Your task to perform on an android device: Do I have any events tomorrow? Image 0: 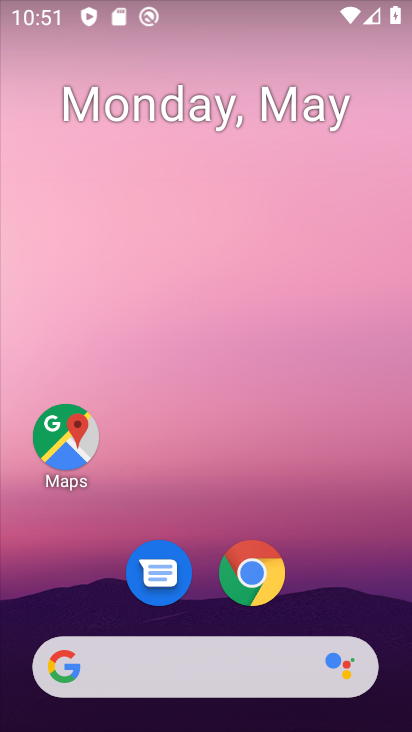
Step 0: drag from (156, 635) to (224, 193)
Your task to perform on an android device: Do I have any events tomorrow? Image 1: 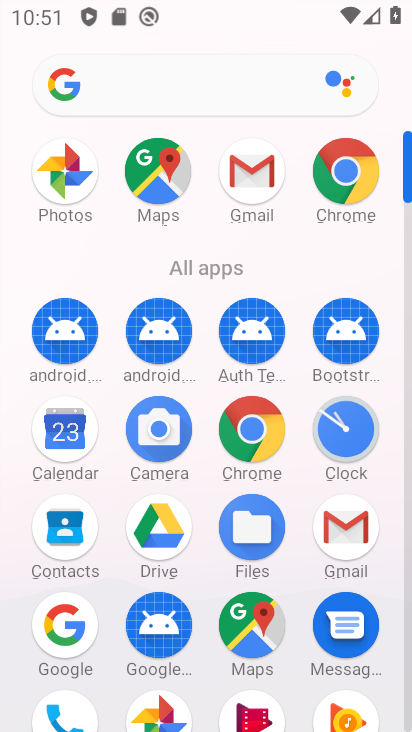
Step 1: click (59, 430)
Your task to perform on an android device: Do I have any events tomorrow? Image 2: 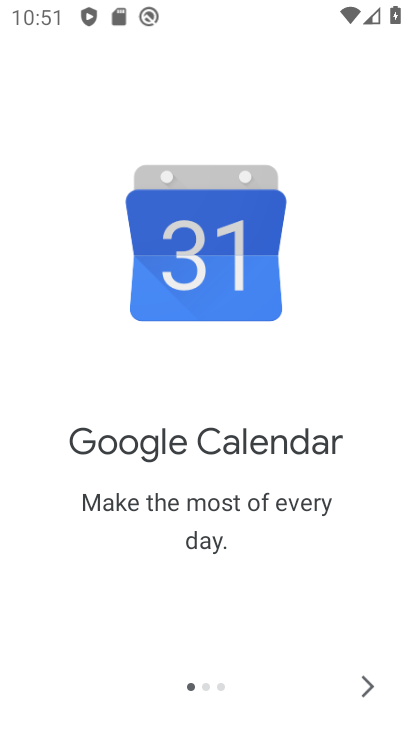
Step 2: click (365, 688)
Your task to perform on an android device: Do I have any events tomorrow? Image 3: 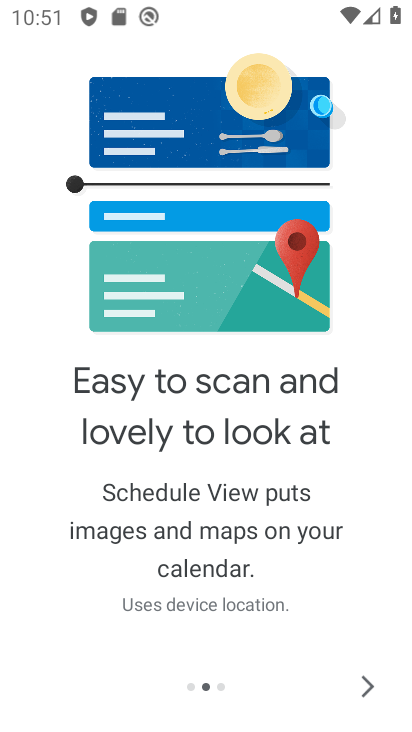
Step 3: click (365, 688)
Your task to perform on an android device: Do I have any events tomorrow? Image 4: 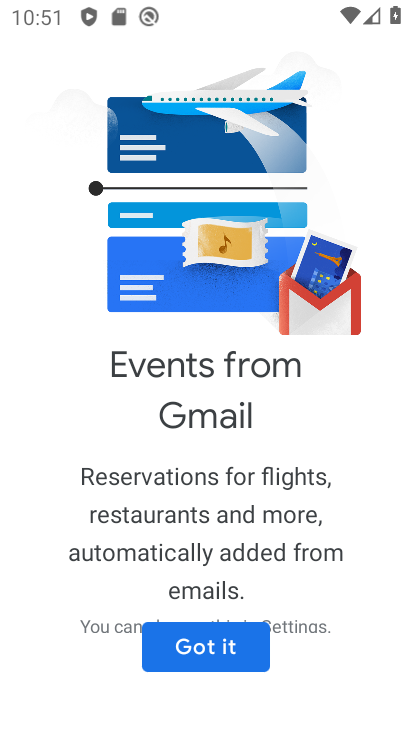
Step 4: click (223, 642)
Your task to perform on an android device: Do I have any events tomorrow? Image 5: 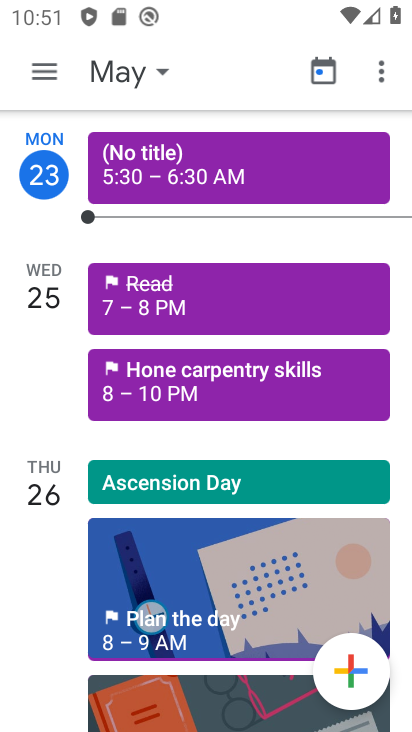
Step 5: click (133, 73)
Your task to perform on an android device: Do I have any events tomorrow? Image 6: 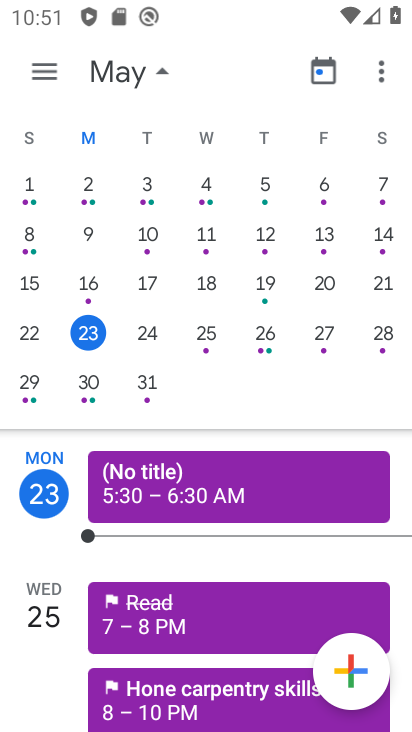
Step 6: click (148, 335)
Your task to perform on an android device: Do I have any events tomorrow? Image 7: 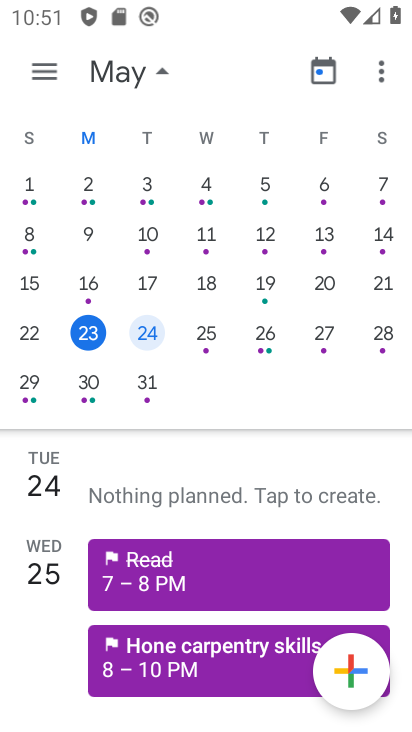
Step 7: task complete